Your task to perform on an android device: toggle notification dots Image 0: 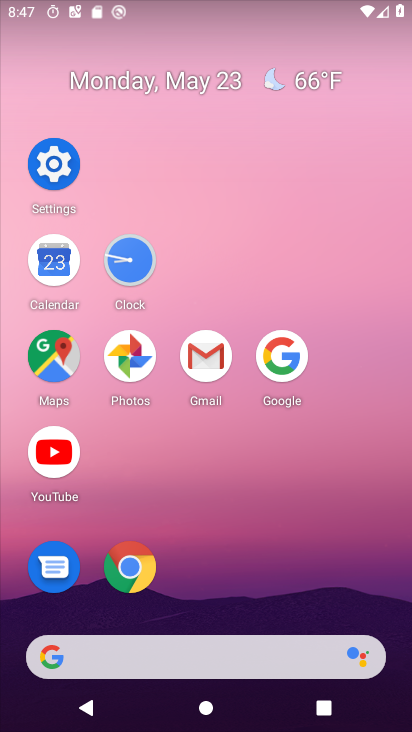
Step 0: click (61, 171)
Your task to perform on an android device: toggle notification dots Image 1: 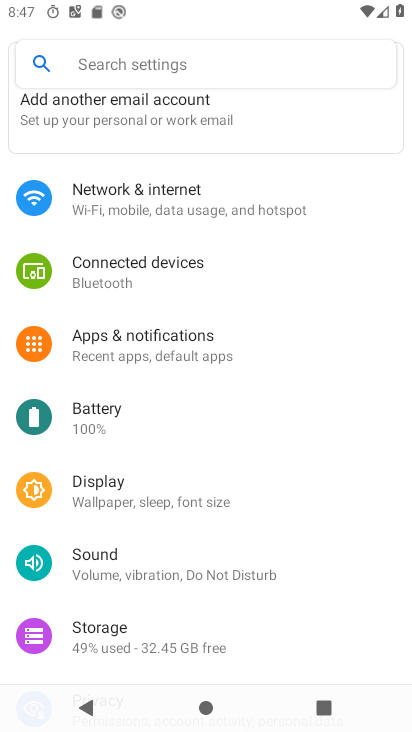
Step 1: click (192, 371)
Your task to perform on an android device: toggle notification dots Image 2: 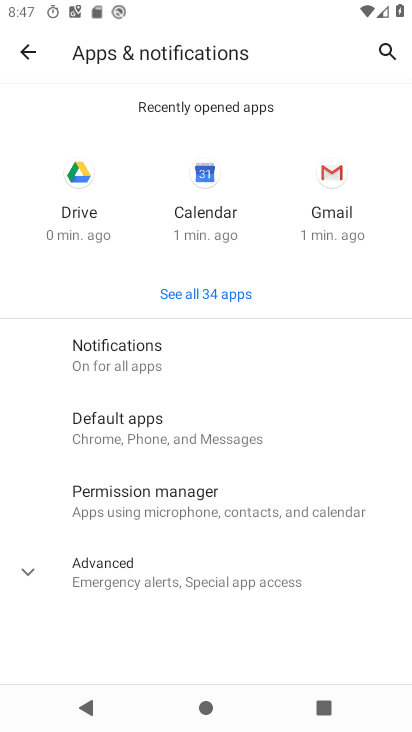
Step 2: click (200, 336)
Your task to perform on an android device: toggle notification dots Image 3: 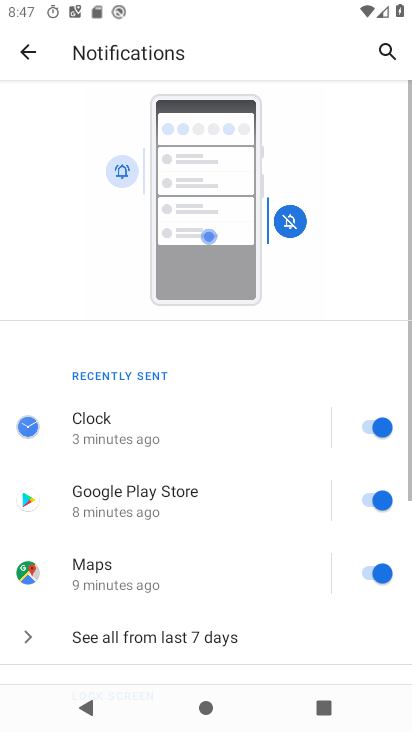
Step 3: drag from (212, 552) to (193, 230)
Your task to perform on an android device: toggle notification dots Image 4: 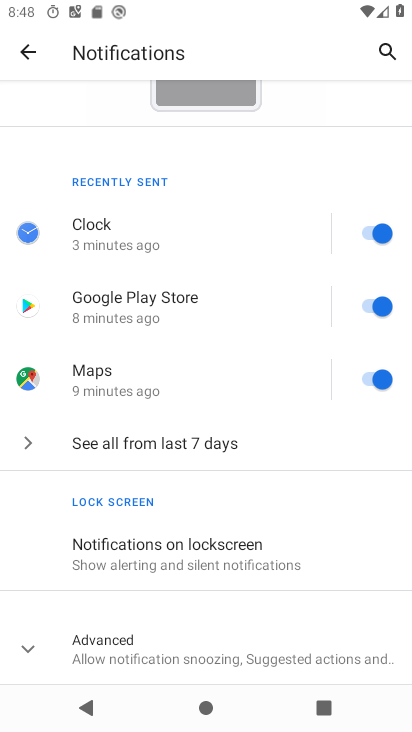
Step 4: click (230, 631)
Your task to perform on an android device: toggle notification dots Image 5: 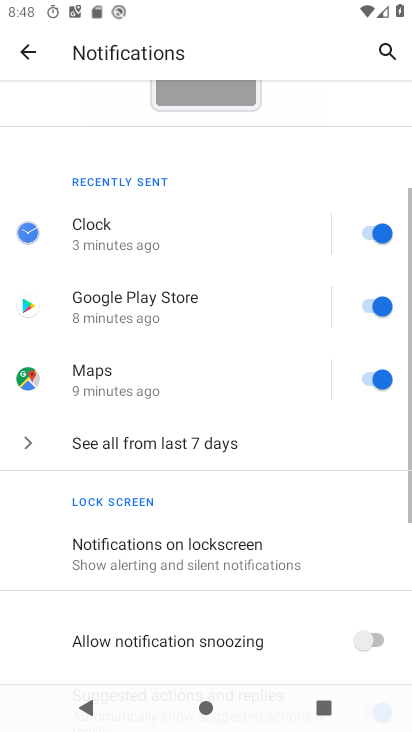
Step 5: drag from (230, 631) to (232, 316)
Your task to perform on an android device: toggle notification dots Image 6: 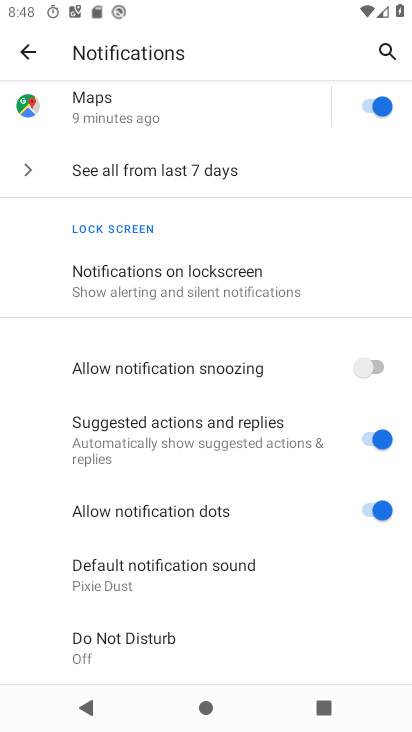
Step 6: click (377, 516)
Your task to perform on an android device: toggle notification dots Image 7: 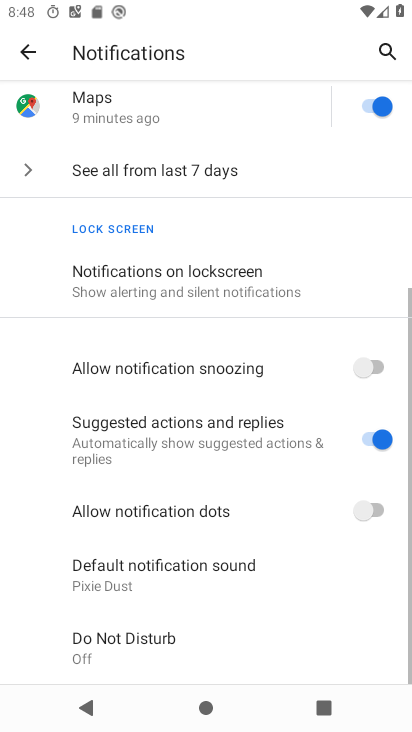
Step 7: task complete